Your task to perform on an android device: set the timer Image 0: 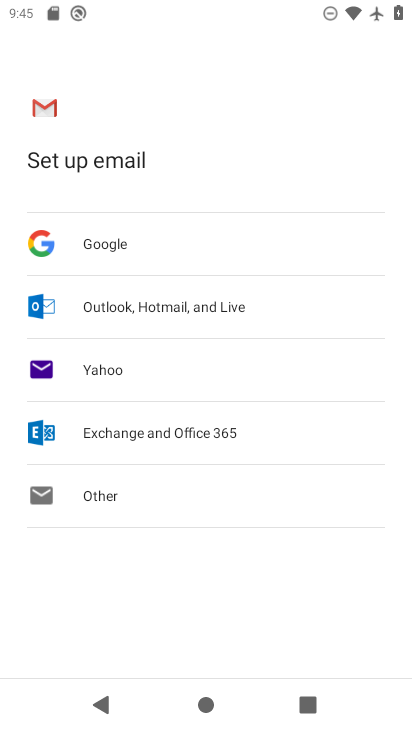
Step 0: press home button
Your task to perform on an android device: set the timer Image 1: 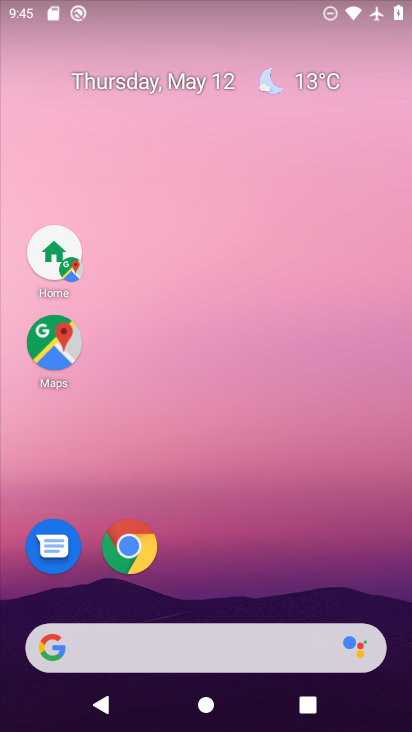
Step 1: drag from (171, 626) to (297, 170)
Your task to perform on an android device: set the timer Image 2: 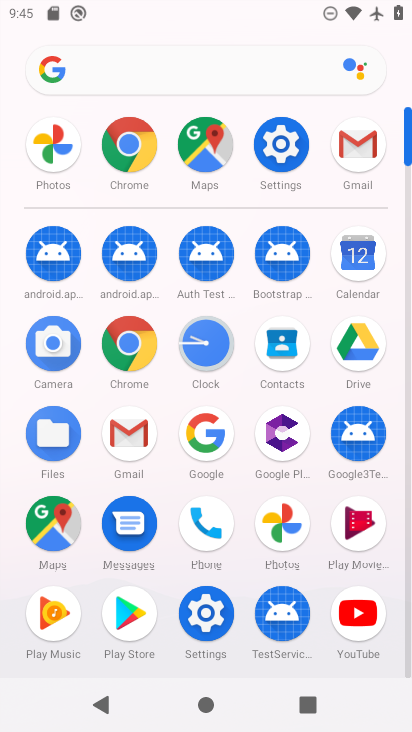
Step 2: click (202, 354)
Your task to perform on an android device: set the timer Image 3: 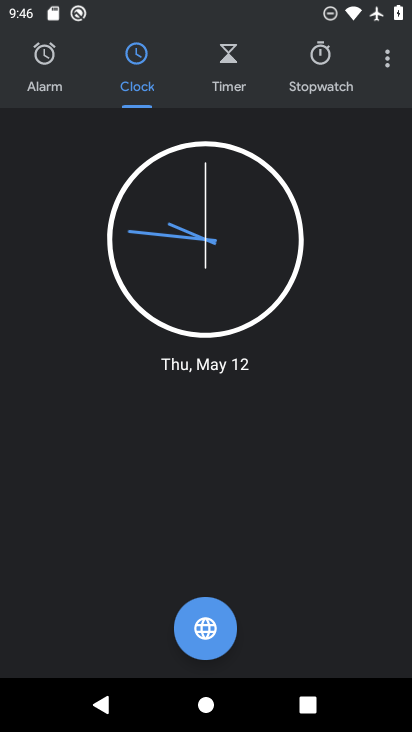
Step 3: click (230, 75)
Your task to perform on an android device: set the timer Image 4: 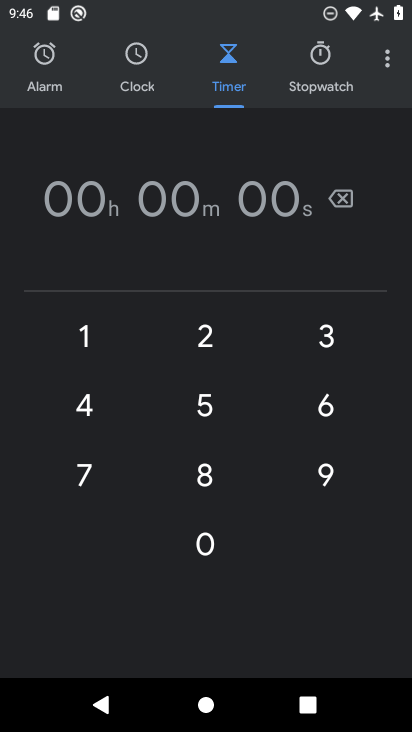
Step 4: click (201, 326)
Your task to perform on an android device: set the timer Image 5: 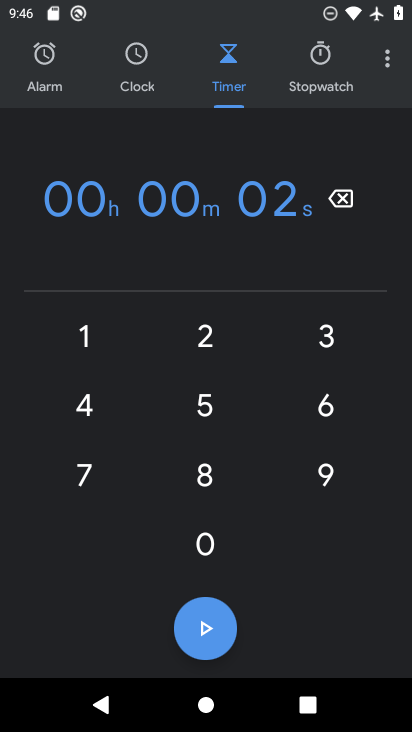
Step 5: click (201, 326)
Your task to perform on an android device: set the timer Image 6: 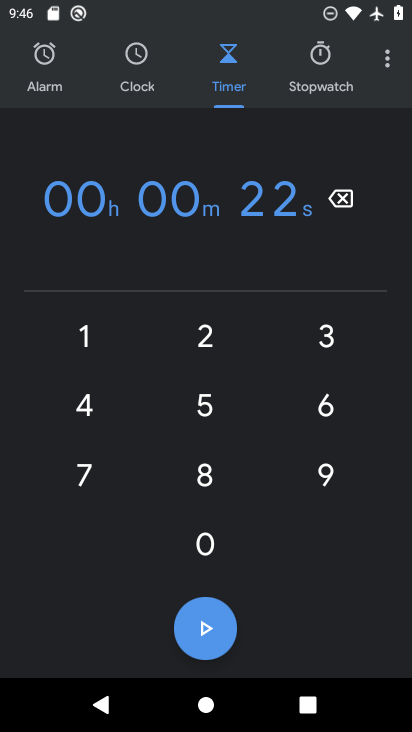
Step 6: click (203, 632)
Your task to perform on an android device: set the timer Image 7: 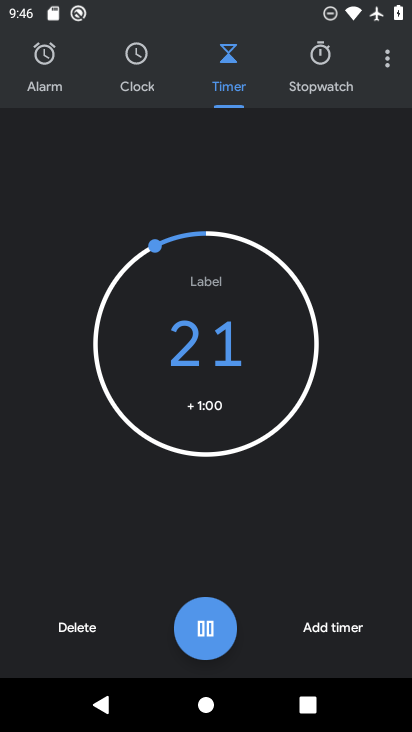
Step 7: click (203, 632)
Your task to perform on an android device: set the timer Image 8: 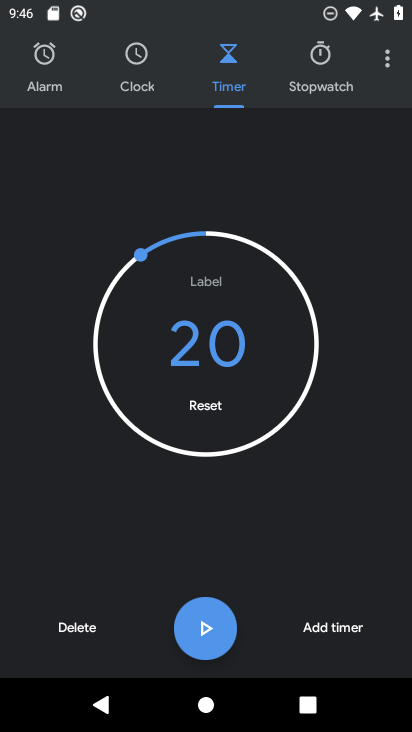
Step 8: task complete